Your task to perform on an android device: Find coffee shops on Maps Image 0: 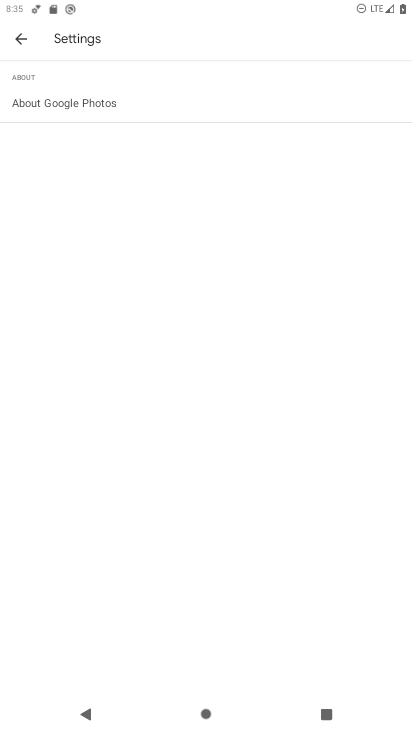
Step 0: press home button
Your task to perform on an android device: Find coffee shops on Maps Image 1: 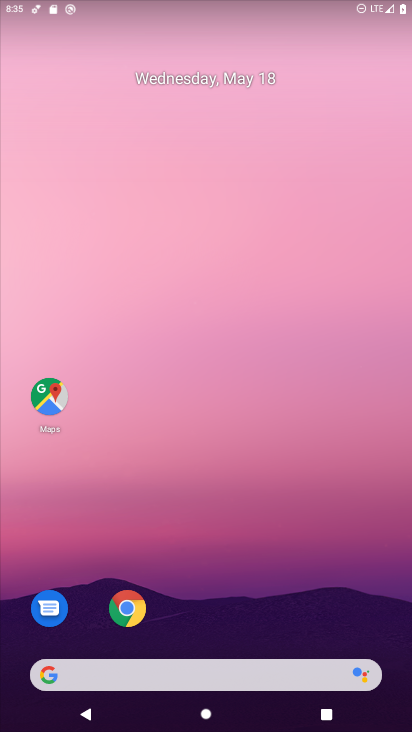
Step 1: drag from (257, 563) to (247, 471)
Your task to perform on an android device: Find coffee shops on Maps Image 2: 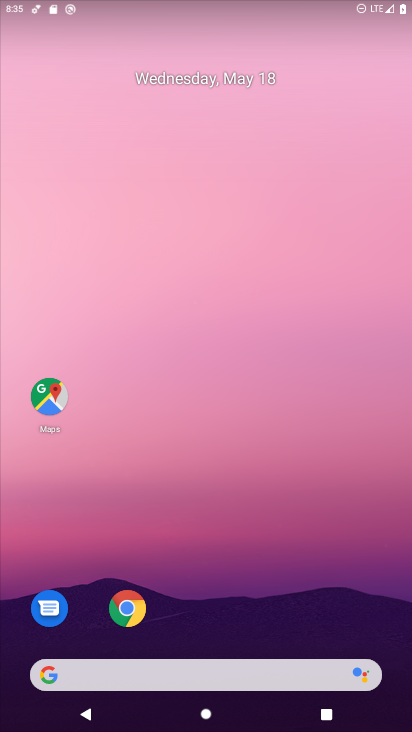
Step 2: click (47, 393)
Your task to perform on an android device: Find coffee shops on Maps Image 3: 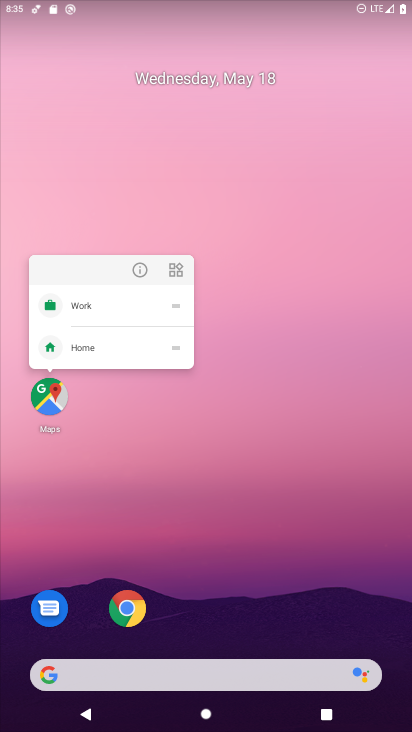
Step 3: click (42, 405)
Your task to perform on an android device: Find coffee shops on Maps Image 4: 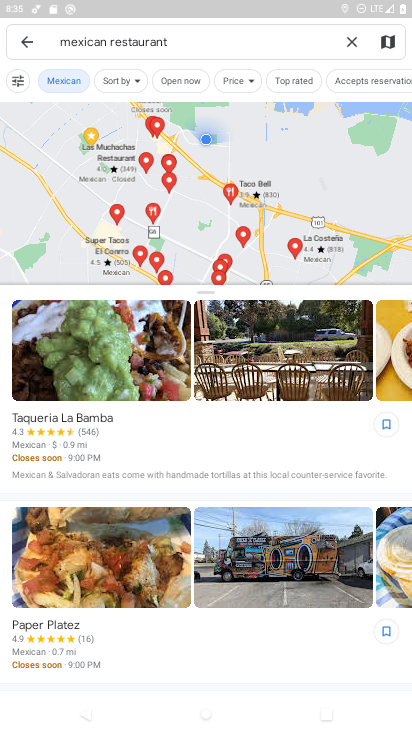
Step 4: click (297, 37)
Your task to perform on an android device: Find coffee shops on Maps Image 5: 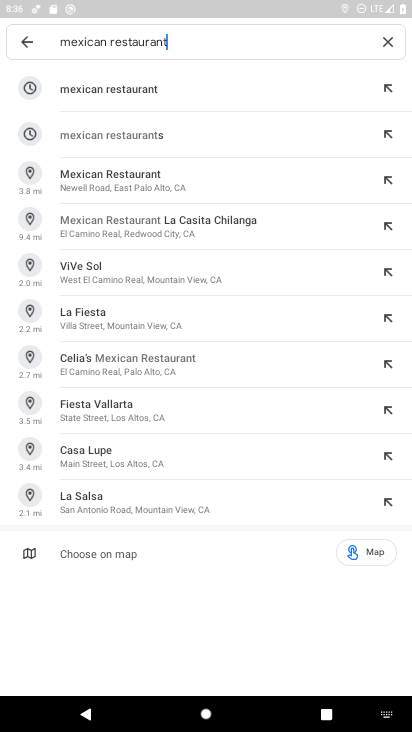
Step 5: click (385, 38)
Your task to perform on an android device: Find coffee shops on Maps Image 6: 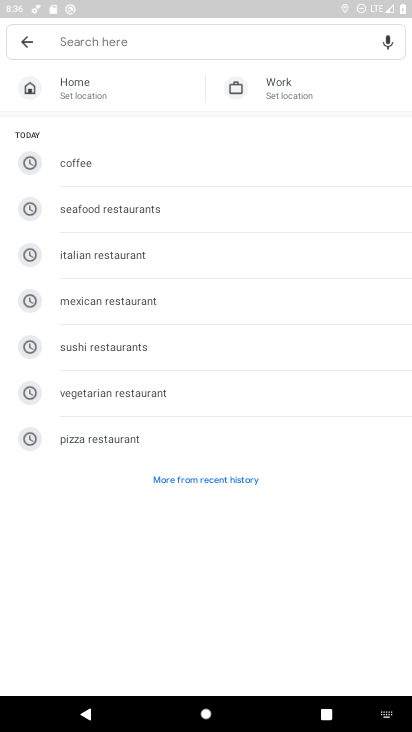
Step 6: click (82, 158)
Your task to perform on an android device: Find coffee shops on Maps Image 7: 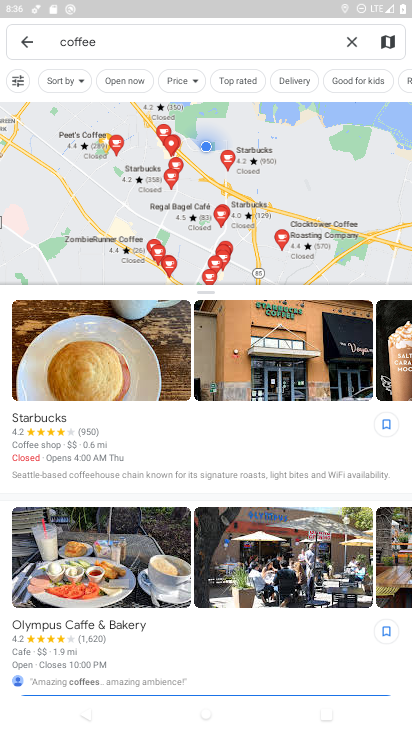
Step 7: task complete